Your task to perform on an android device: Open network settings Image 0: 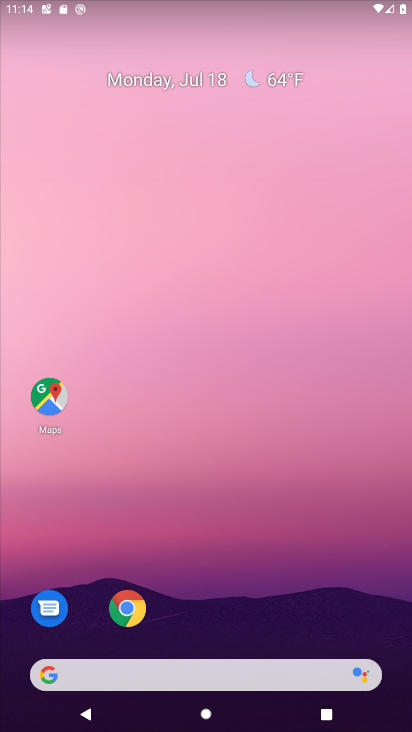
Step 0: drag from (261, 598) to (192, 115)
Your task to perform on an android device: Open network settings Image 1: 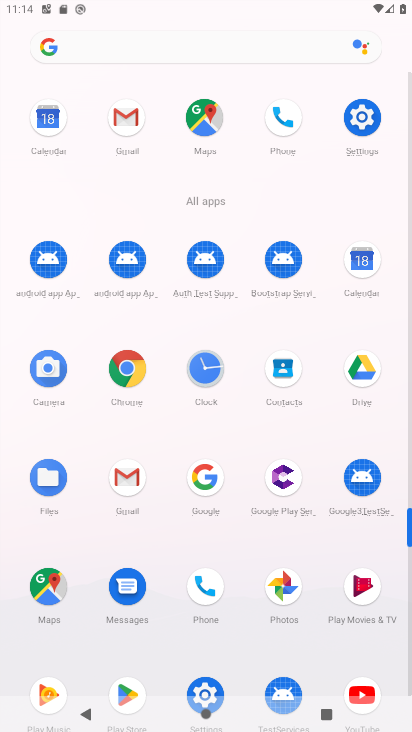
Step 1: click (377, 118)
Your task to perform on an android device: Open network settings Image 2: 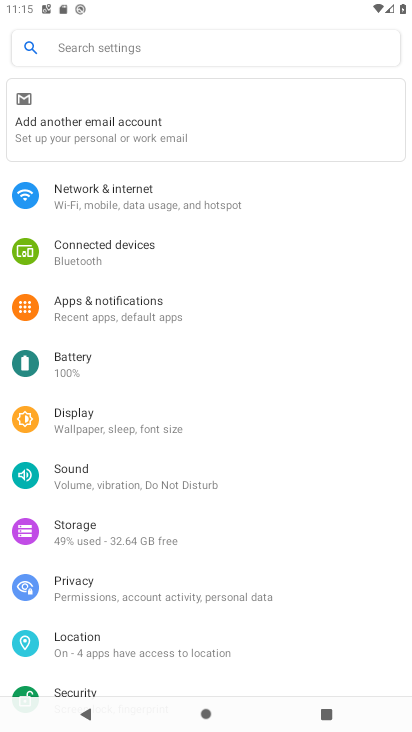
Step 2: click (97, 208)
Your task to perform on an android device: Open network settings Image 3: 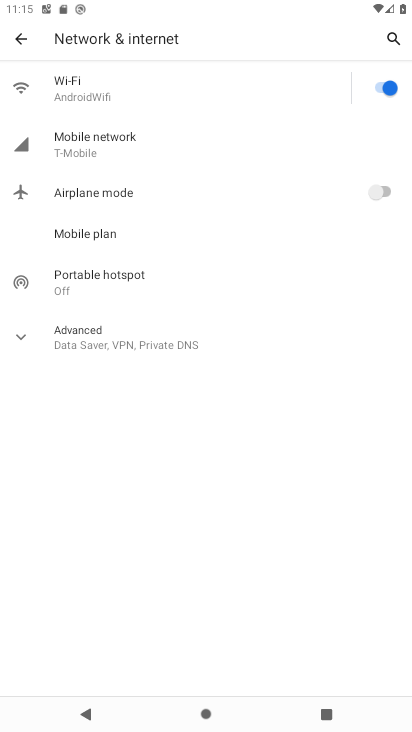
Step 3: click (145, 144)
Your task to perform on an android device: Open network settings Image 4: 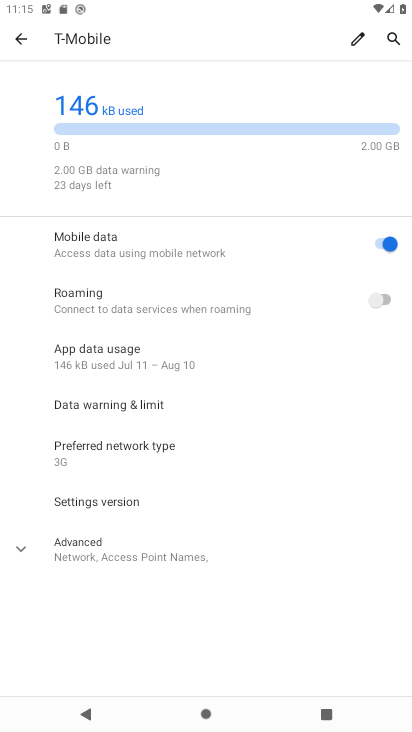
Step 4: task complete